Your task to perform on an android device: Open maps Image 0: 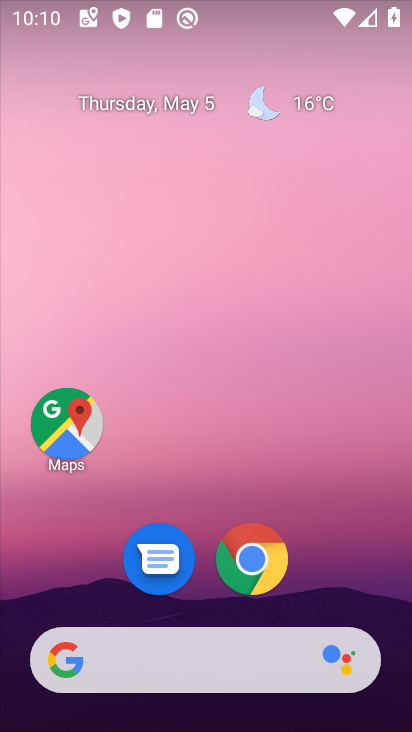
Step 0: click (86, 424)
Your task to perform on an android device: Open maps Image 1: 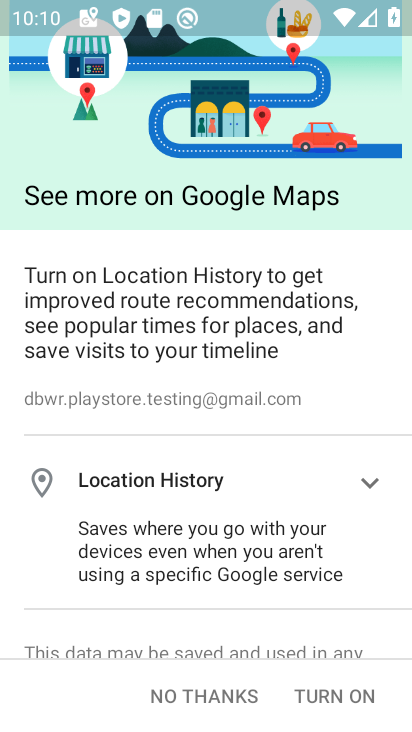
Step 1: click (308, 694)
Your task to perform on an android device: Open maps Image 2: 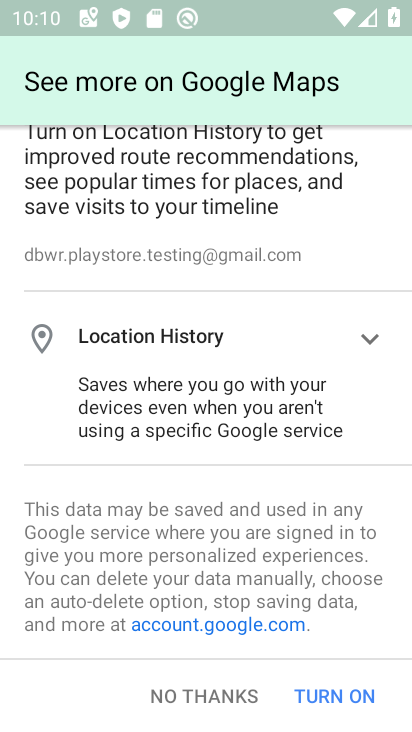
Step 2: click (306, 694)
Your task to perform on an android device: Open maps Image 3: 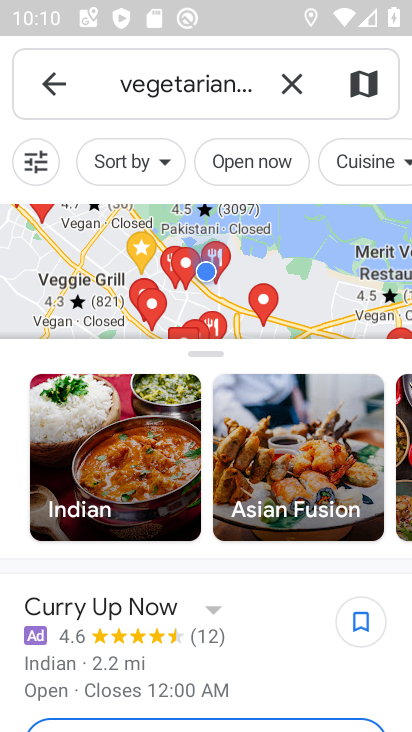
Step 3: task complete